Your task to perform on an android device: open wifi settings Image 0: 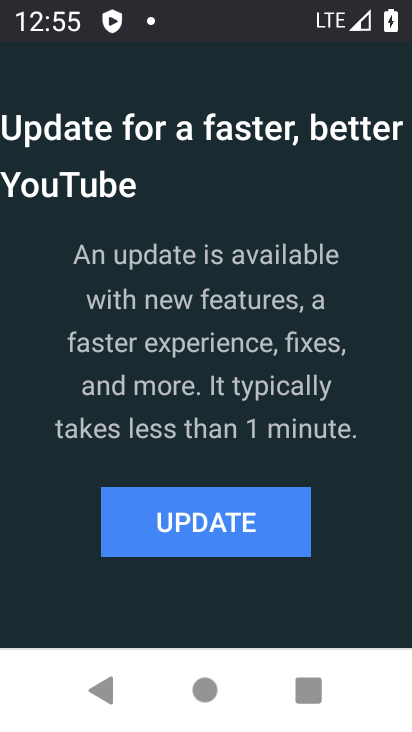
Step 0: press back button
Your task to perform on an android device: open wifi settings Image 1: 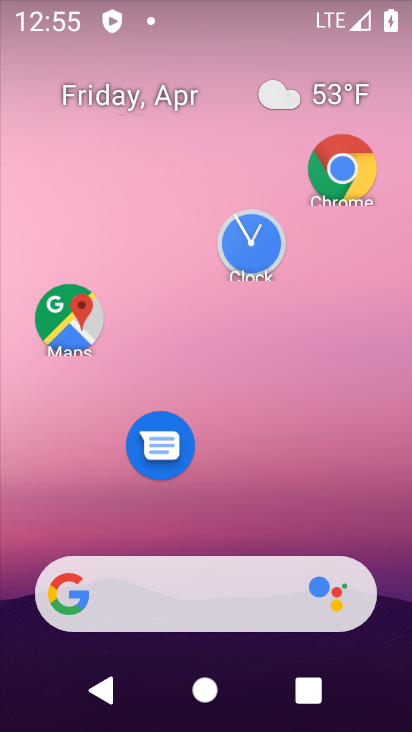
Step 1: drag from (264, 513) to (253, 134)
Your task to perform on an android device: open wifi settings Image 2: 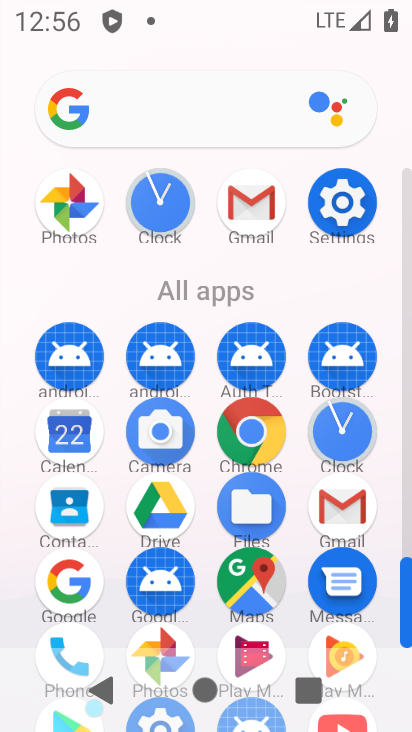
Step 2: click (325, 208)
Your task to perform on an android device: open wifi settings Image 3: 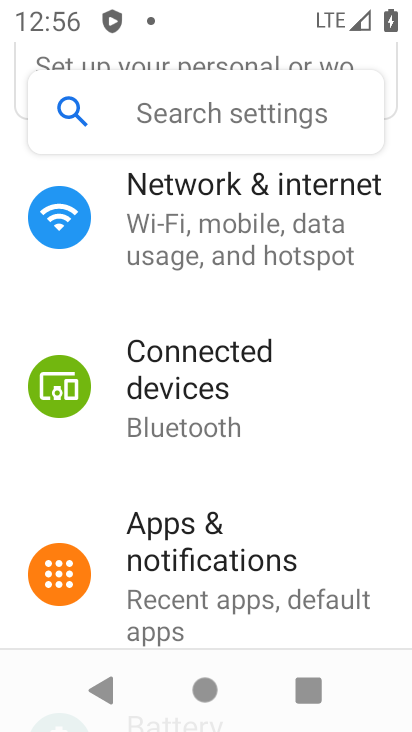
Step 3: click (305, 246)
Your task to perform on an android device: open wifi settings Image 4: 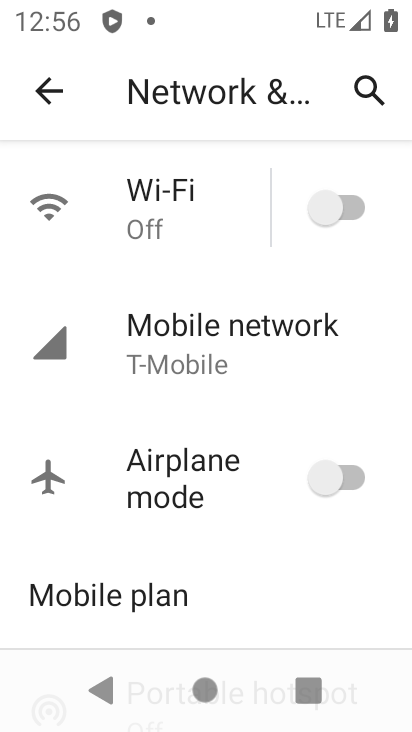
Step 4: click (182, 221)
Your task to perform on an android device: open wifi settings Image 5: 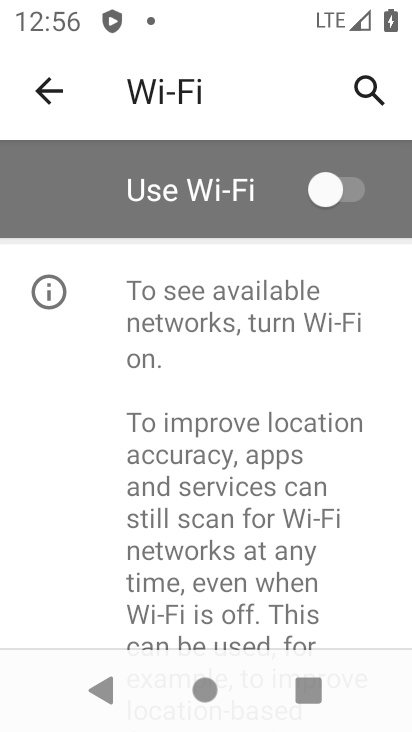
Step 5: click (325, 203)
Your task to perform on an android device: open wifi settings Image 6: 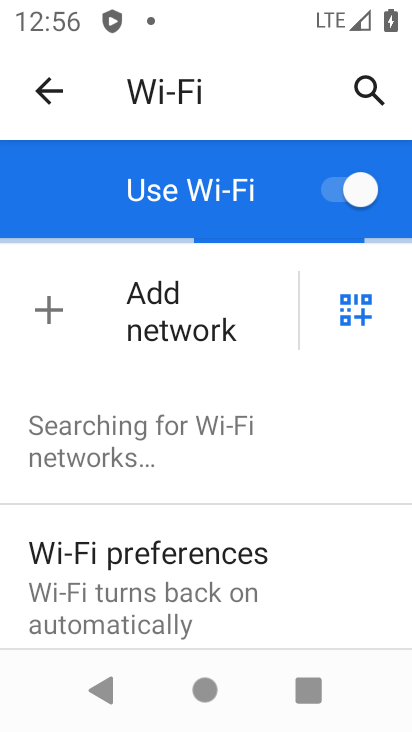
Step 6: task complete